Your task to perform on an android device: all mails in gmail Image 0: 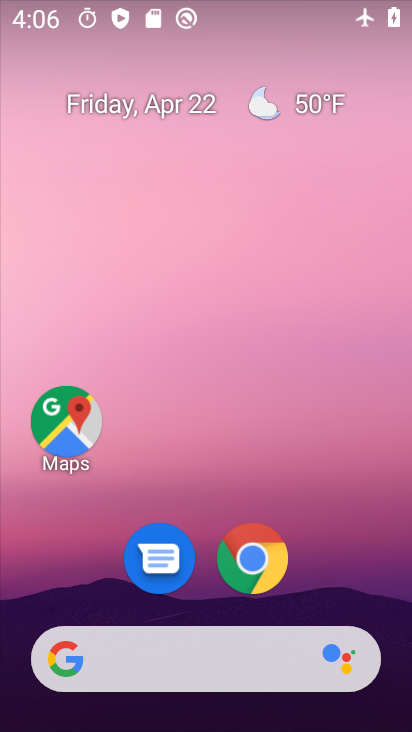
Step 0: drag from (322, 580) to (286, 208)
Your task to perform on an android device: all mails in gmail Image 1: 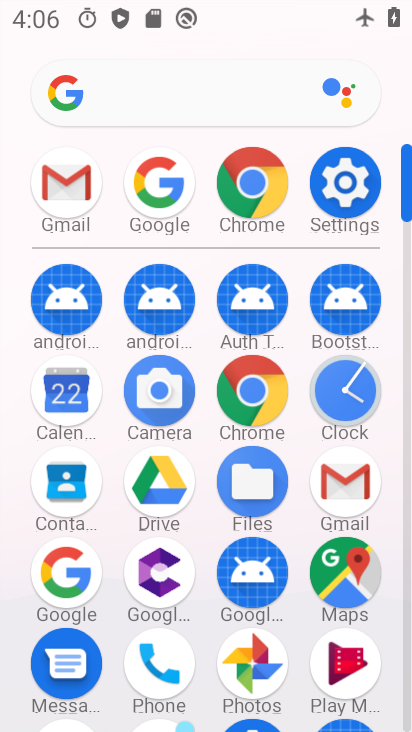
Step 1: click (352, 499)
Your task to perform on an android device: all mails in gmail Image 2: 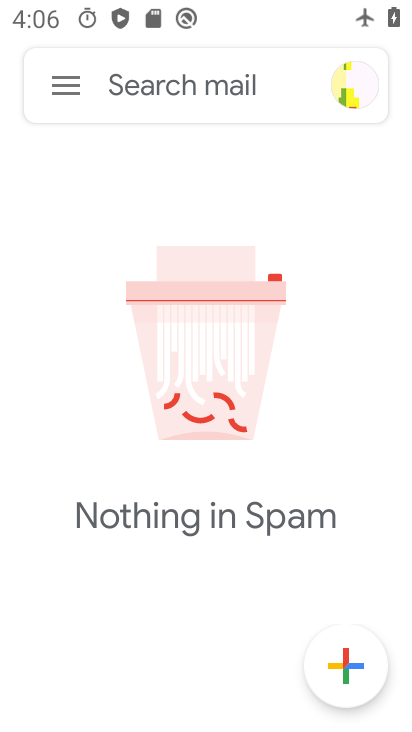
Step 2: click (47, 84)
Your task to perform on an android device: all mails in gmail Image 3: 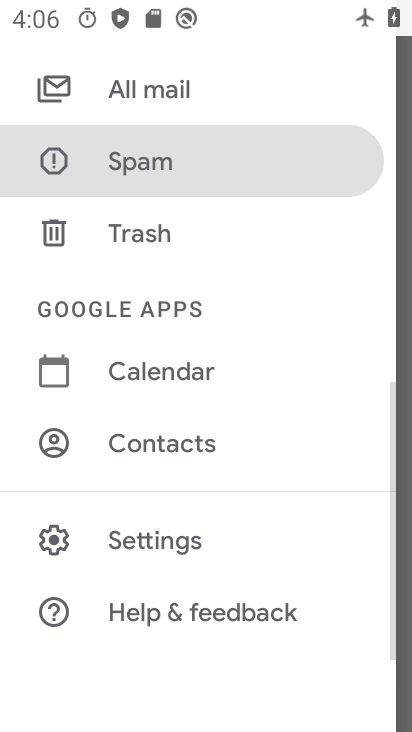
Step 3: drag from (279, 254) to (264, 530)
Your task to perform on an android device: all mails in gmail Image 4: 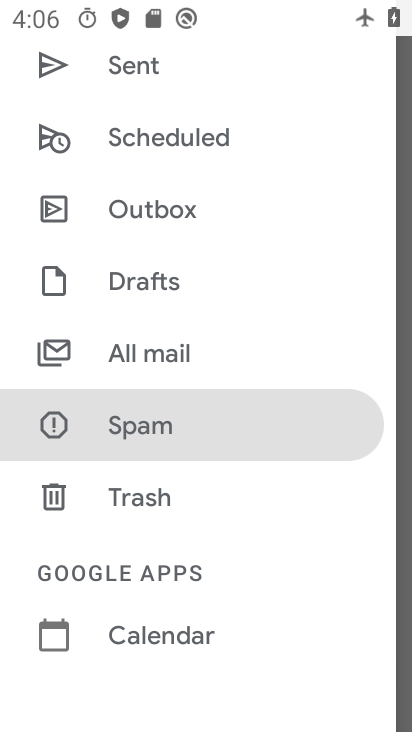
Step 4: click (160, 346)
Your task to perform on an android device: all mails in gmail Image 5: 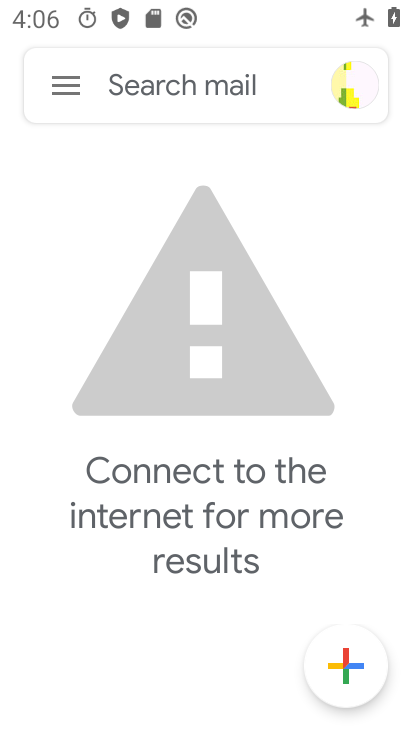
Step 5: task complete